Your task to perform on an android device: turn pop-ups off in chrome Image 0: 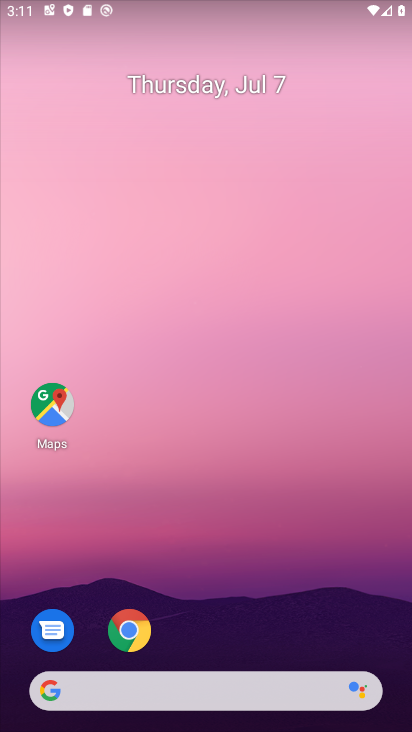
Step 0: click (134, 648)
Your task to perform on an android device: turn pop-ups off in chrome Image 1: 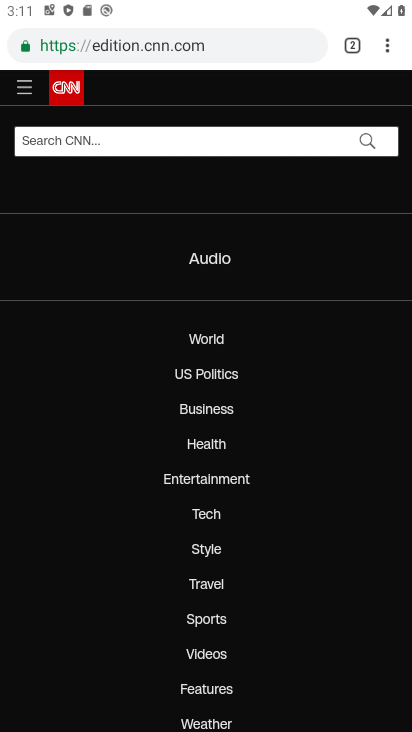
Step 1: click (394, 41)
Your task to perform on an android device: turn pop-ups off in chrome Image 2: 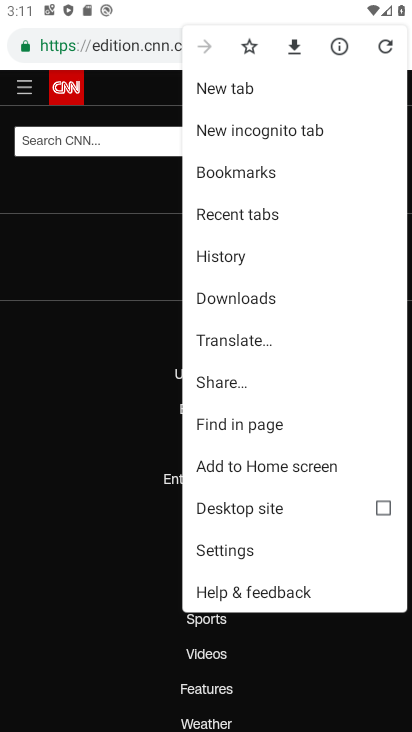
Step 2: click (241, 551)
Your task to perform on an android device: turn pop-ups off in chrome Image 3: 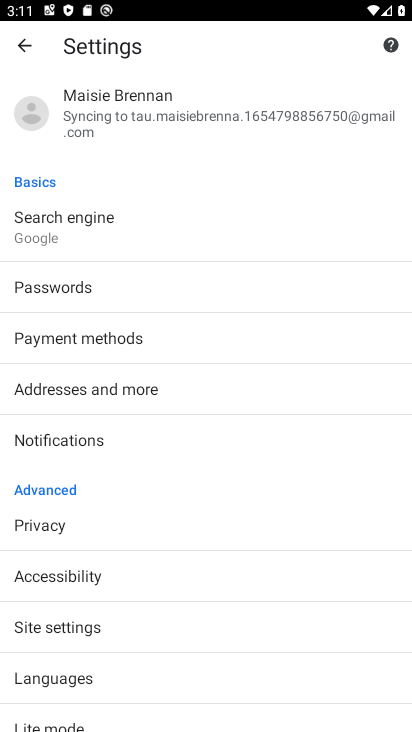
Step 3: drag from (71, 632) to (104, 427)
Your task to perform on an android device: turn pop-ups off in chrome Image 4: 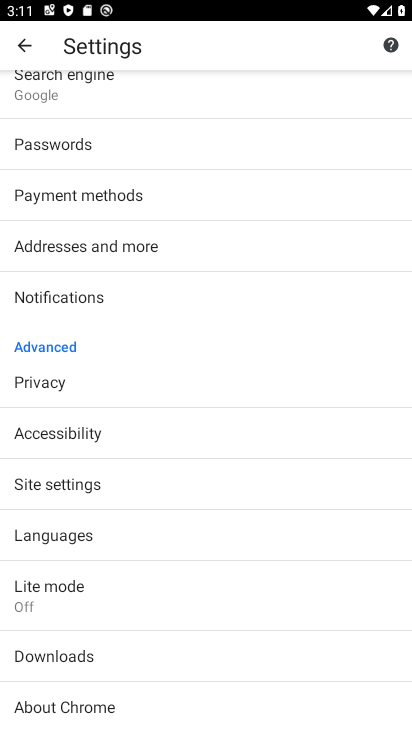
Step 4: click (74, 487)
Your task to perform on an android device: turn pop-ups off in chrome Image 5: 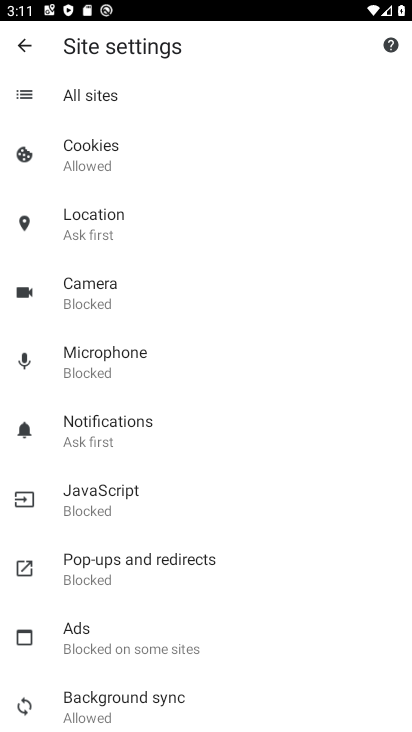
Step 5: click (111, 572)
Your task to perform on an android device: turn pop-ups off in chrome Image 6: 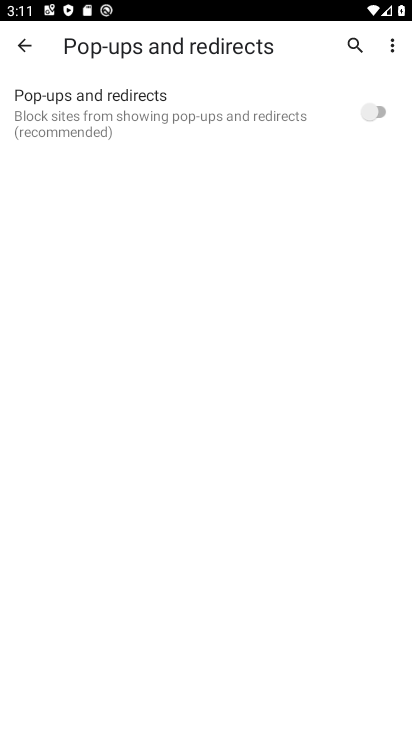
Step 6: task complete